Your task to perform on an android device: Go to Yahoo.com Image 0: 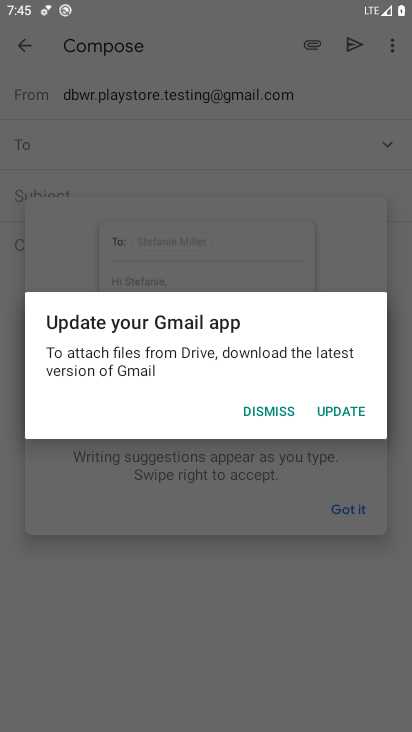
Step 0: press home button
Your task to perform on an android device: Go to Yahoo.com Image 1: 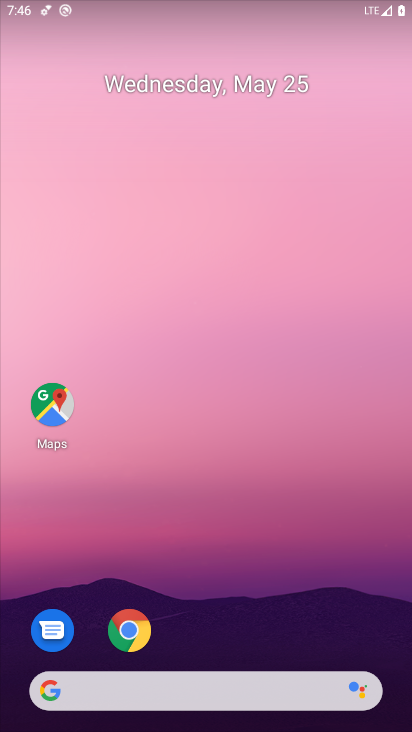
Step 1: drag from (193, 665) to (269, 318)
Your task to perform on an android device: Go to Yahoo.com Image 2: 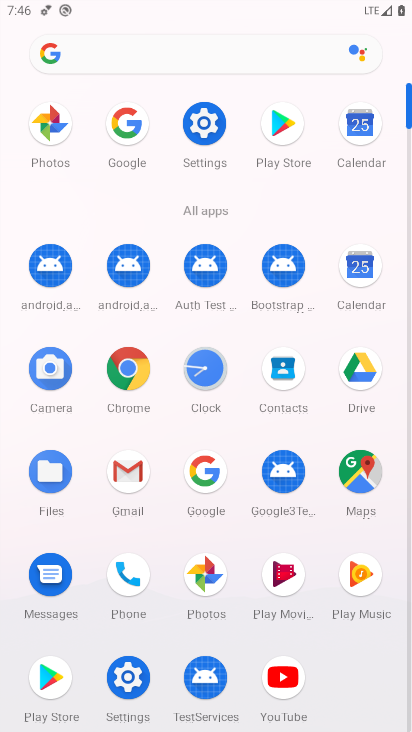
Step 2: click (133, 367)
Your task to perform on an android device: Go to Yahoo.com Image 3: 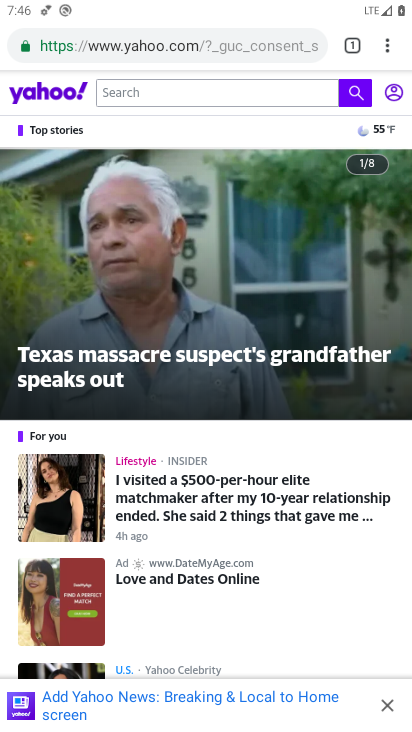
Step 3: task complete